Your task to perform on an android device: Toggle the flashlight Image 0: 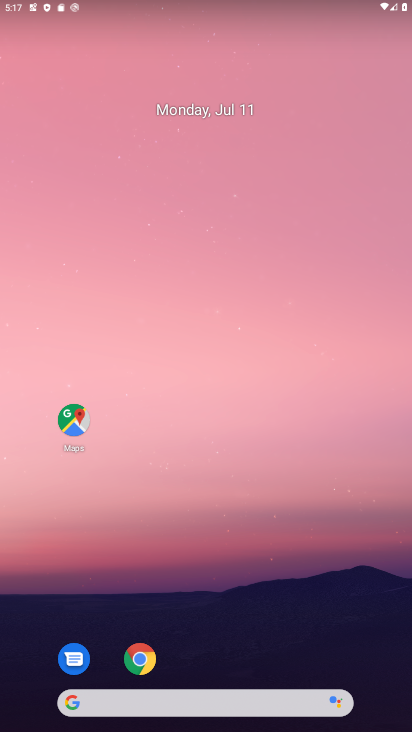
Step 0: drag from (224, 13) to (228, 361)
Your task to perform on an android device: Toggle the flashlight Image 1: 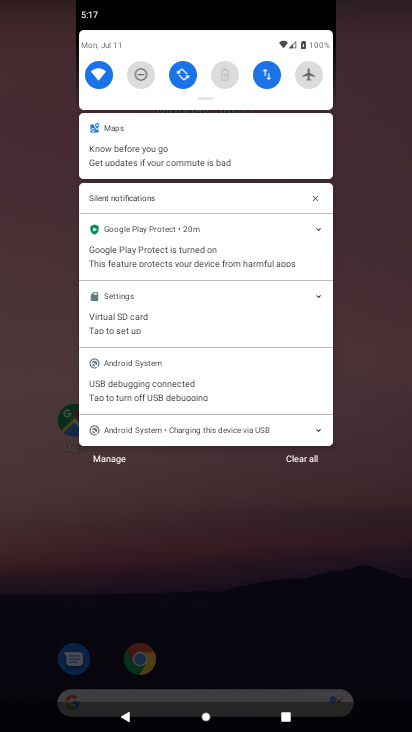
Step 1: drag from (202, 102) to (200, 416)
Your task to perform on an android device: Toggle the flashlight Image 2: 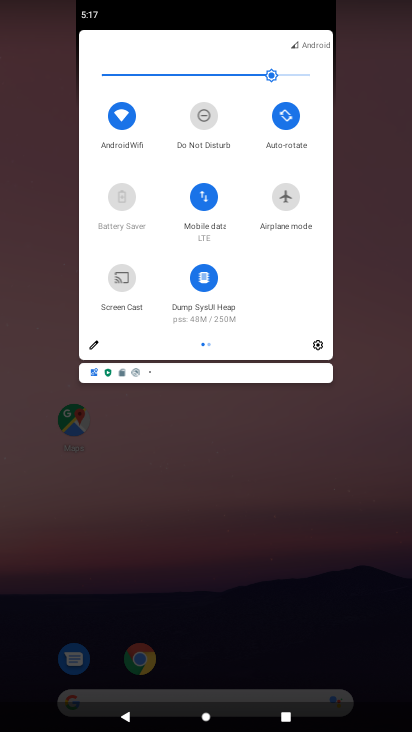
Step 2: click (94, 343)
Your task to perform on an android device: Toggle the flashlight Image 3: 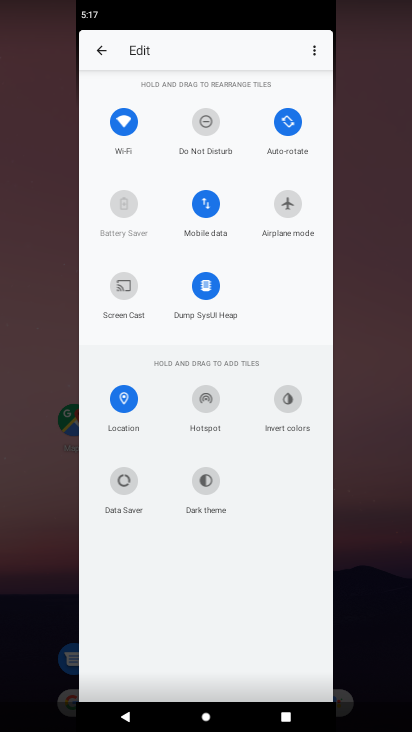
Step 3: task complete